Your task to perform on an android device: turn on location history Image 0: 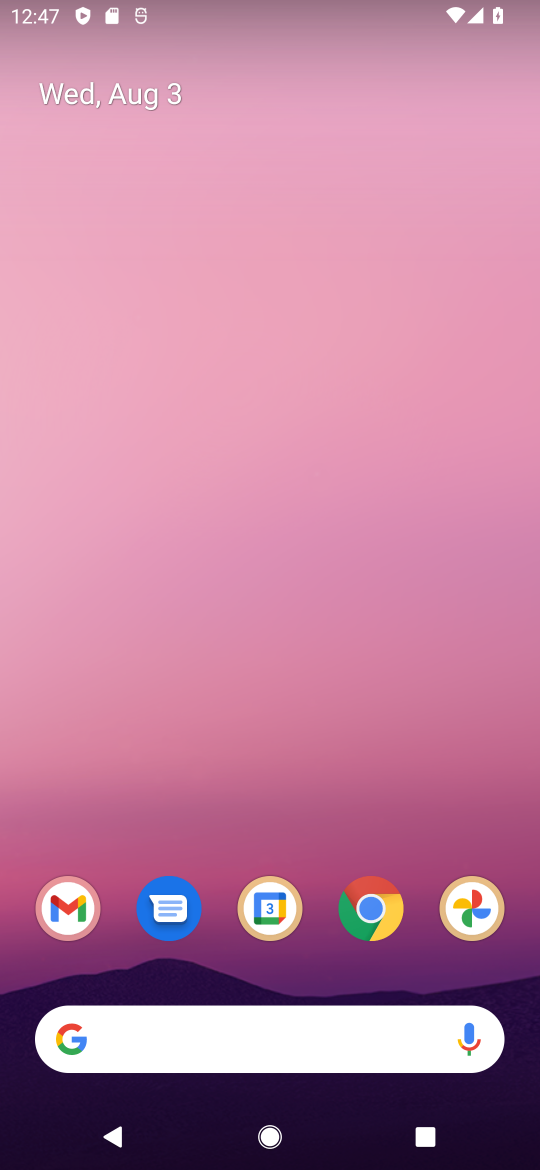
Step 0: drag from (191, 384) to (207, 240)
Your task to perform on an android device: turn on location history Image 1: 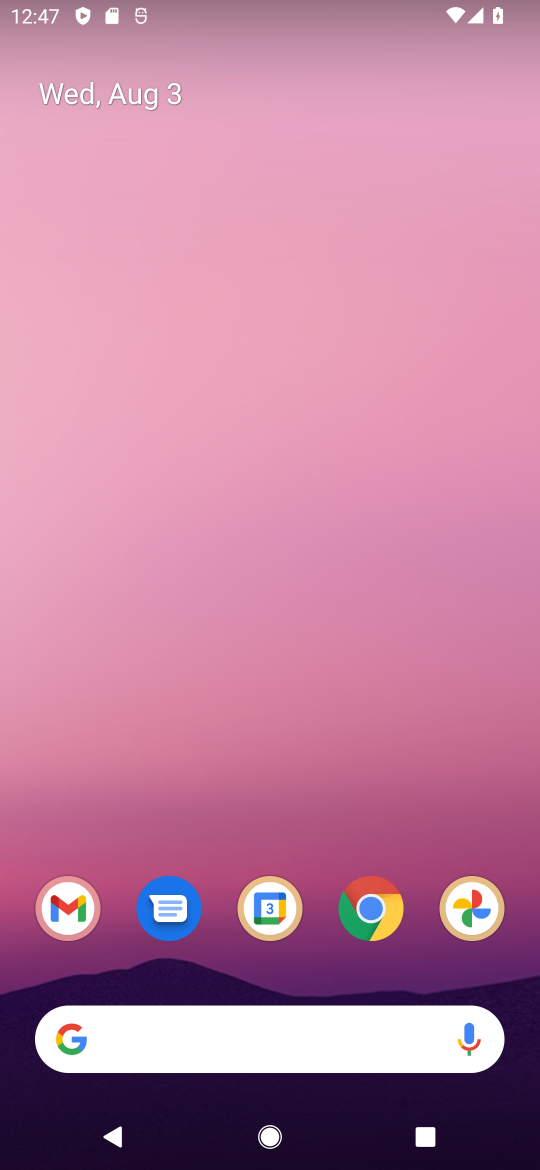
Step 1: drag from (464, 519) to (449, 1043)
Your task to perform on an android device: turn on location history Image 2: 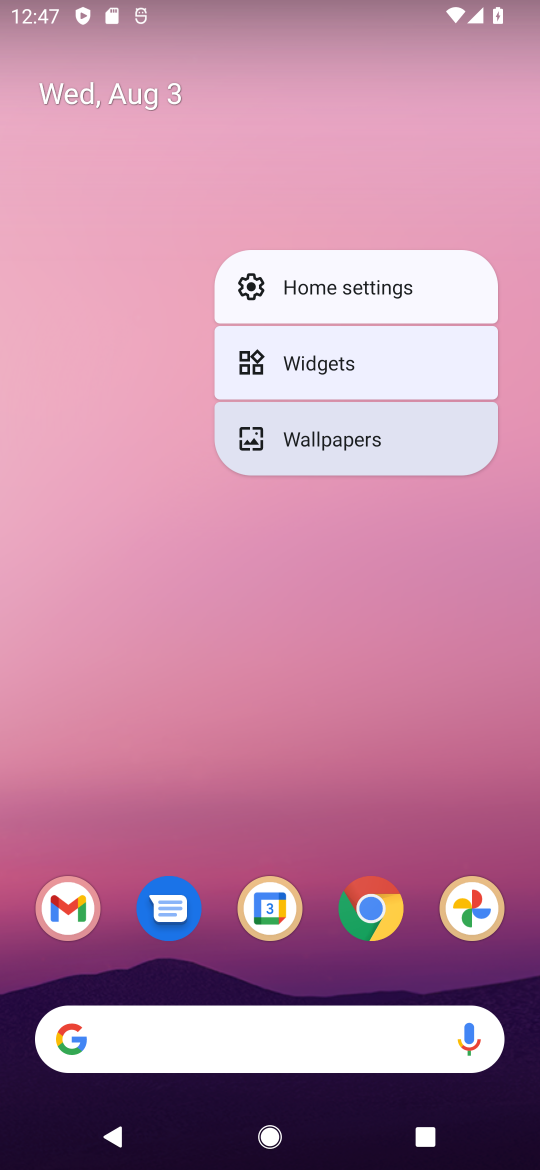
Step 2: drag from (190, 972) to (220, 165)
Your task to perform on an android device: turn on location history Image 3: 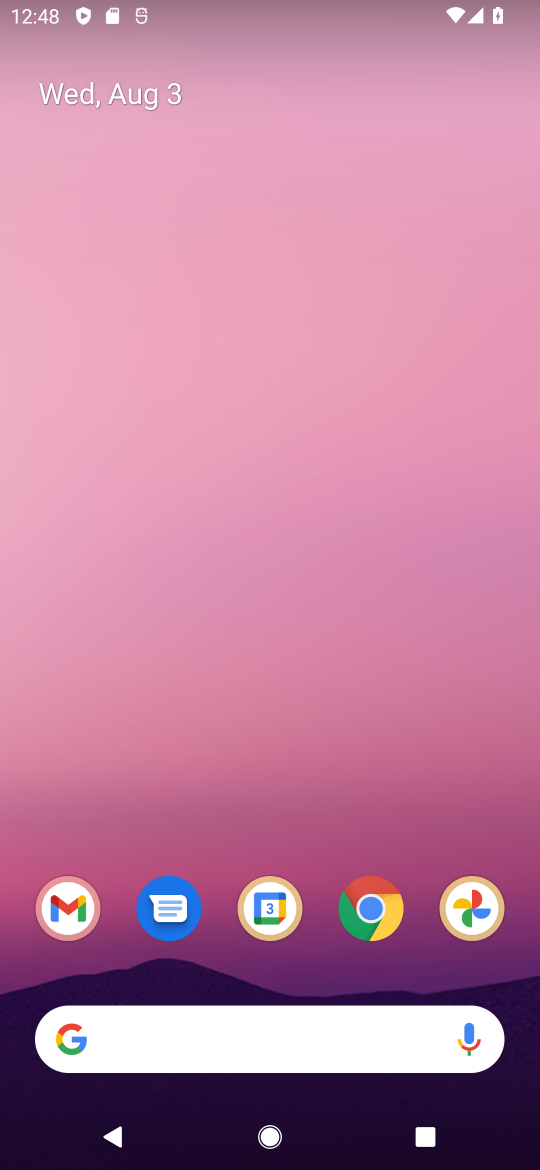
Step 3: drag from (232, 792) to (312, 287)
Your task to perform on an android device: turn on location history Image 4: 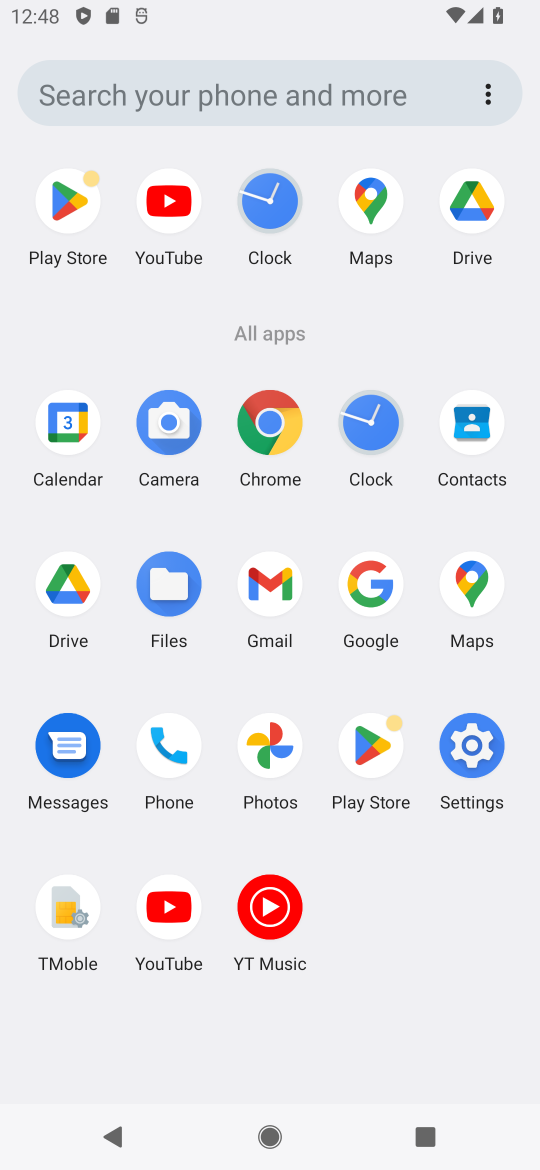
Step 4: click (459, 790)
Your task to perform on an android device: turn on location history Image 5: 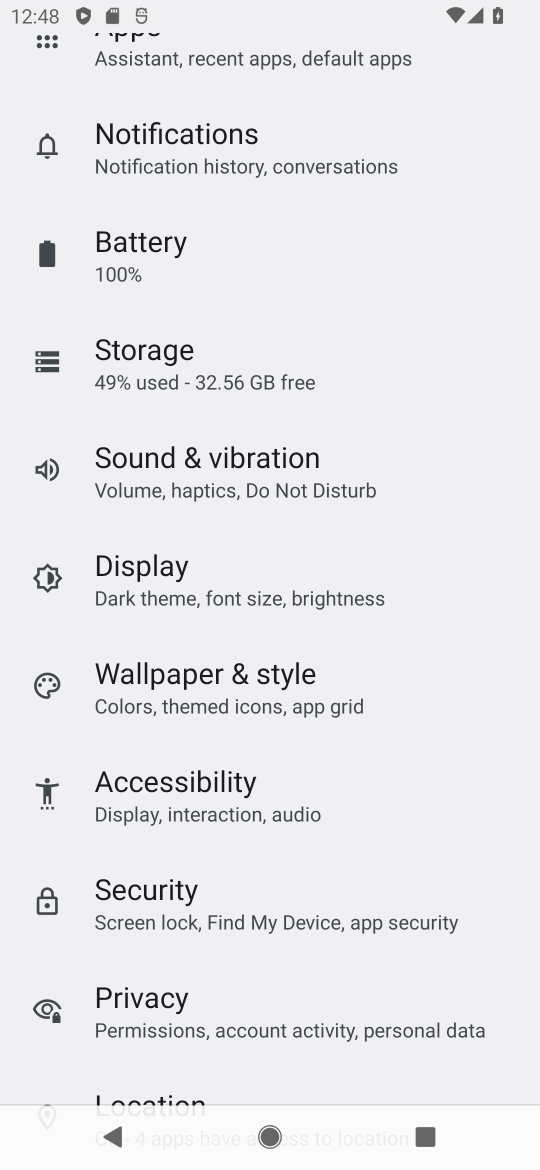
Step 5: drag from (187, 926) to (181, 418)
Your task to perform on an android device: turn on location history Image 6: 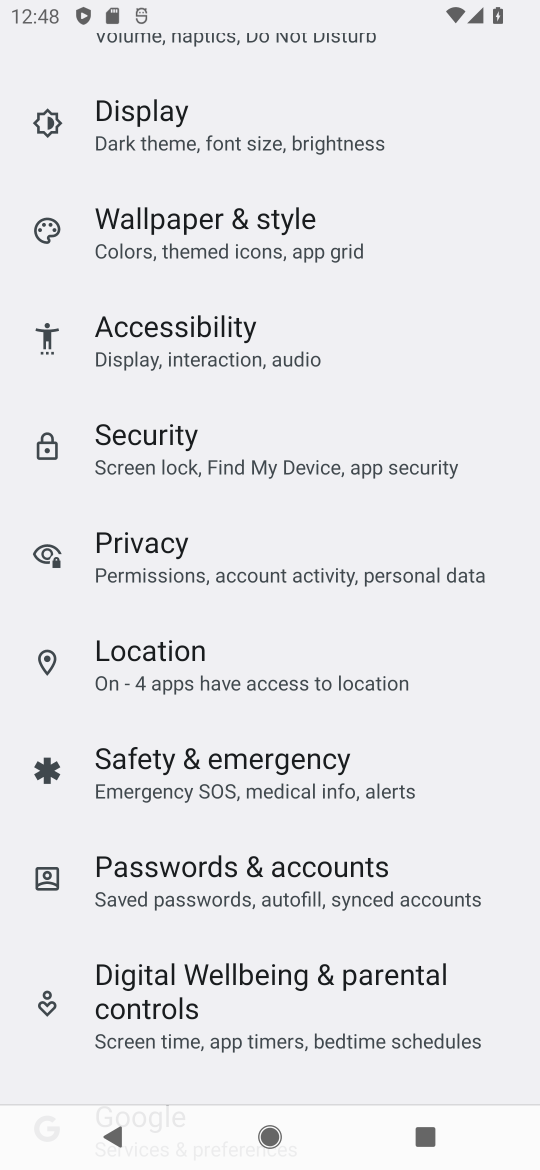
Step 6: click (131, 1074)
Your task to perform on an android device: turn on location history Image 7: 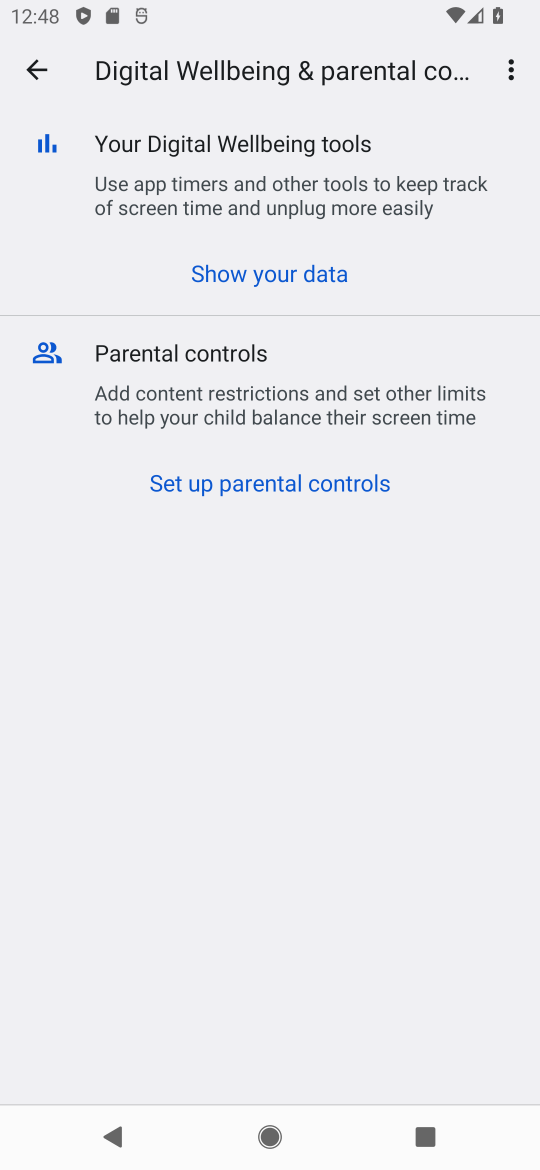
Step 7: click (34, 84)
Your task to perform on an android device: turn on location history Image 8: 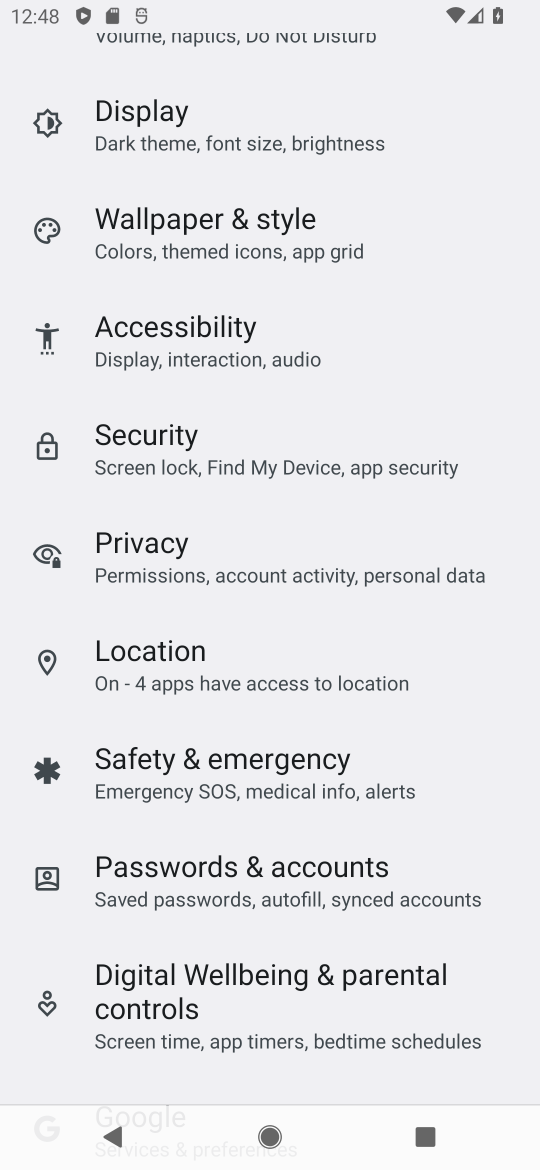
Step 8: click (156, 676)
Your task to perform on an android device: turn on location history Image 9: 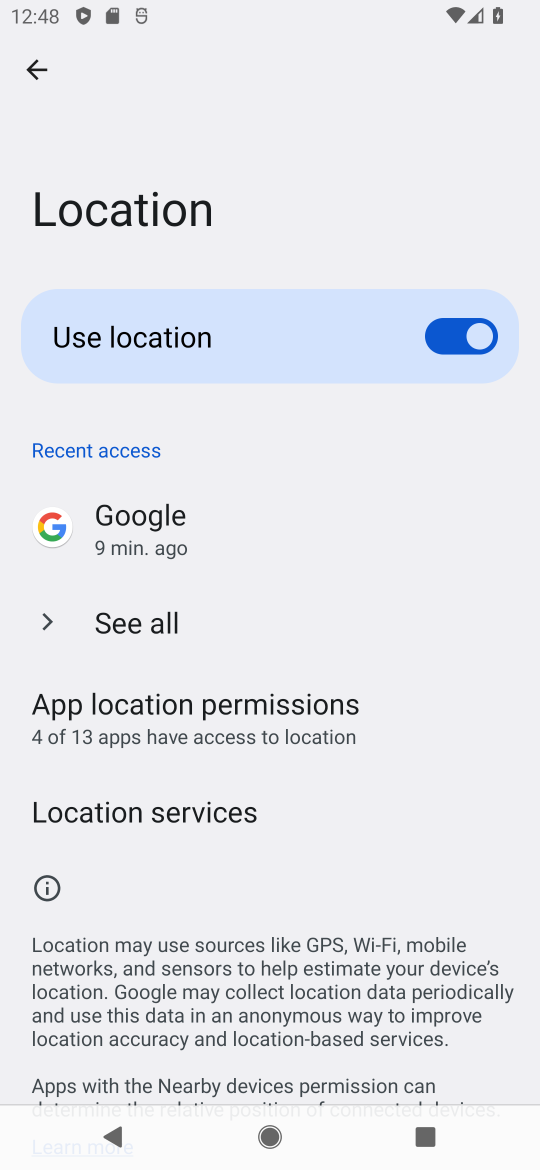
Step 9: click (155, 810)
Your task to perform on an android device: turn on location history Image 10: 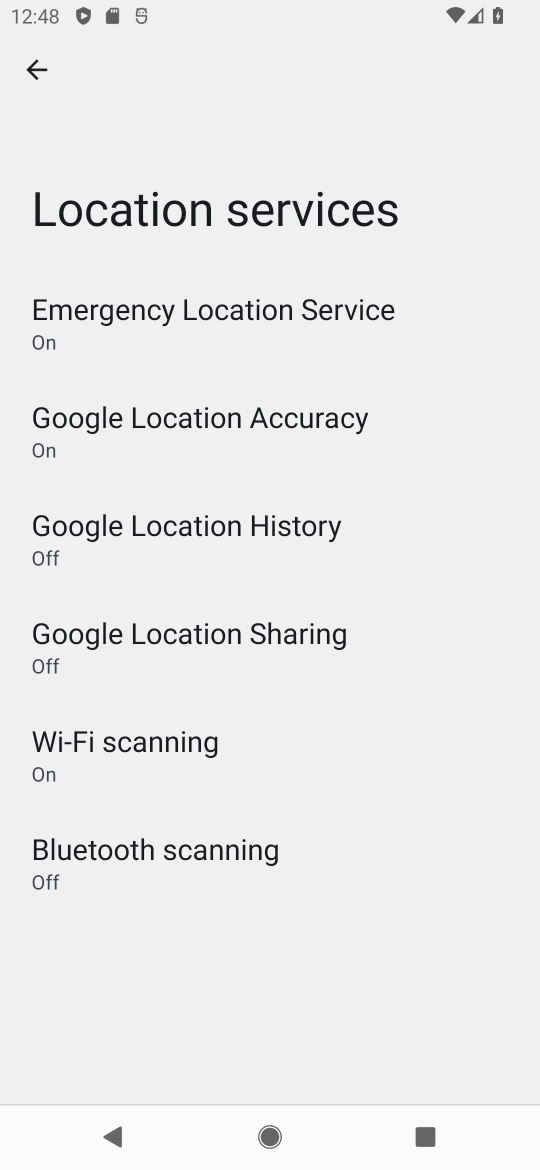
Step 10: click (166, 523)
Your task to perform on an android device: turn on location history Image 11: 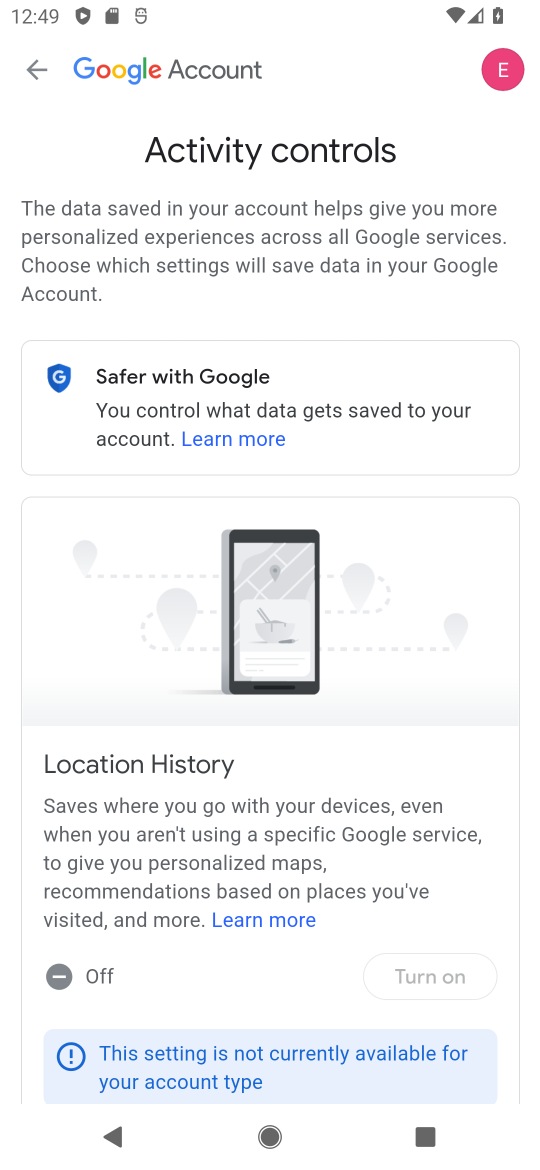
Step 11: task complete